Your task to perform on an android device: open app "LinkedIn" Image 0: 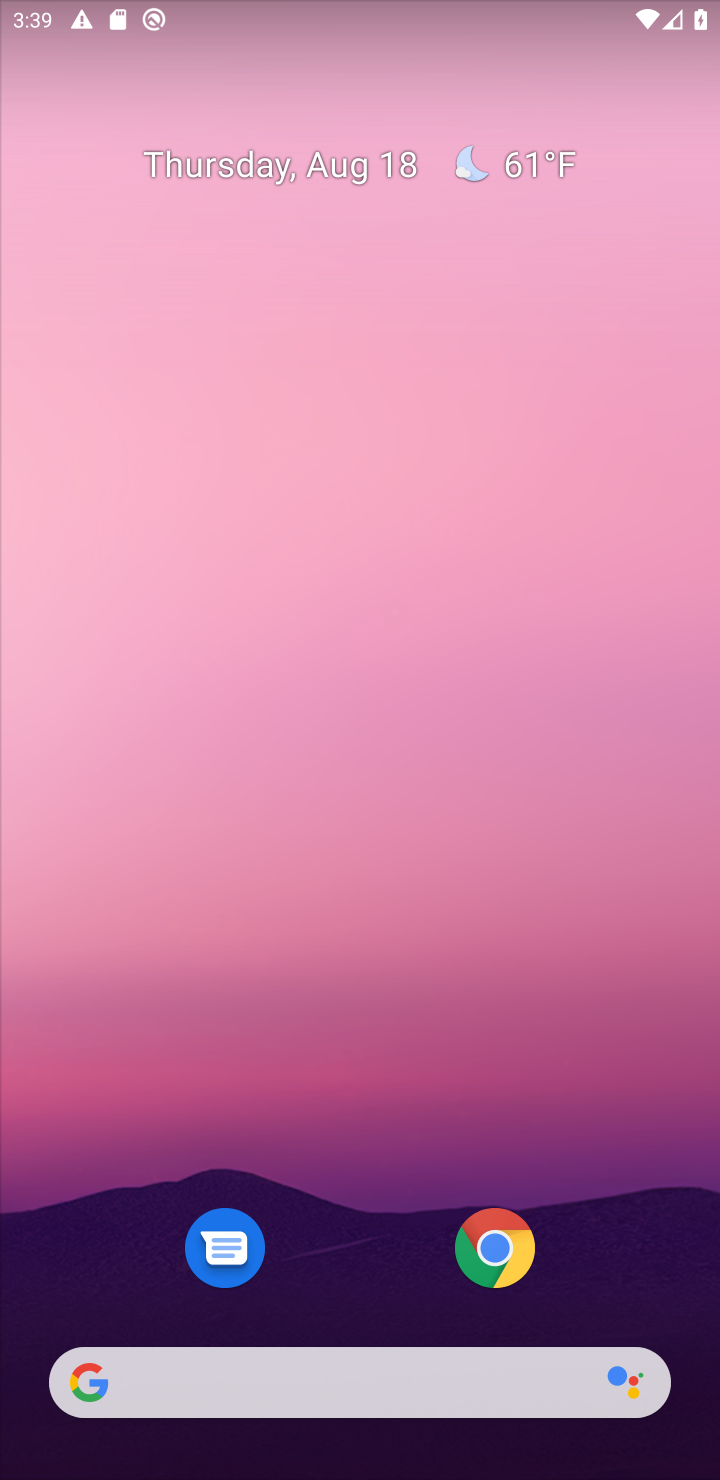
Step 0: drag from (384, 937) to (425, 7)
Your task to perform on an android device: open app "LinkedIn" Image 1: 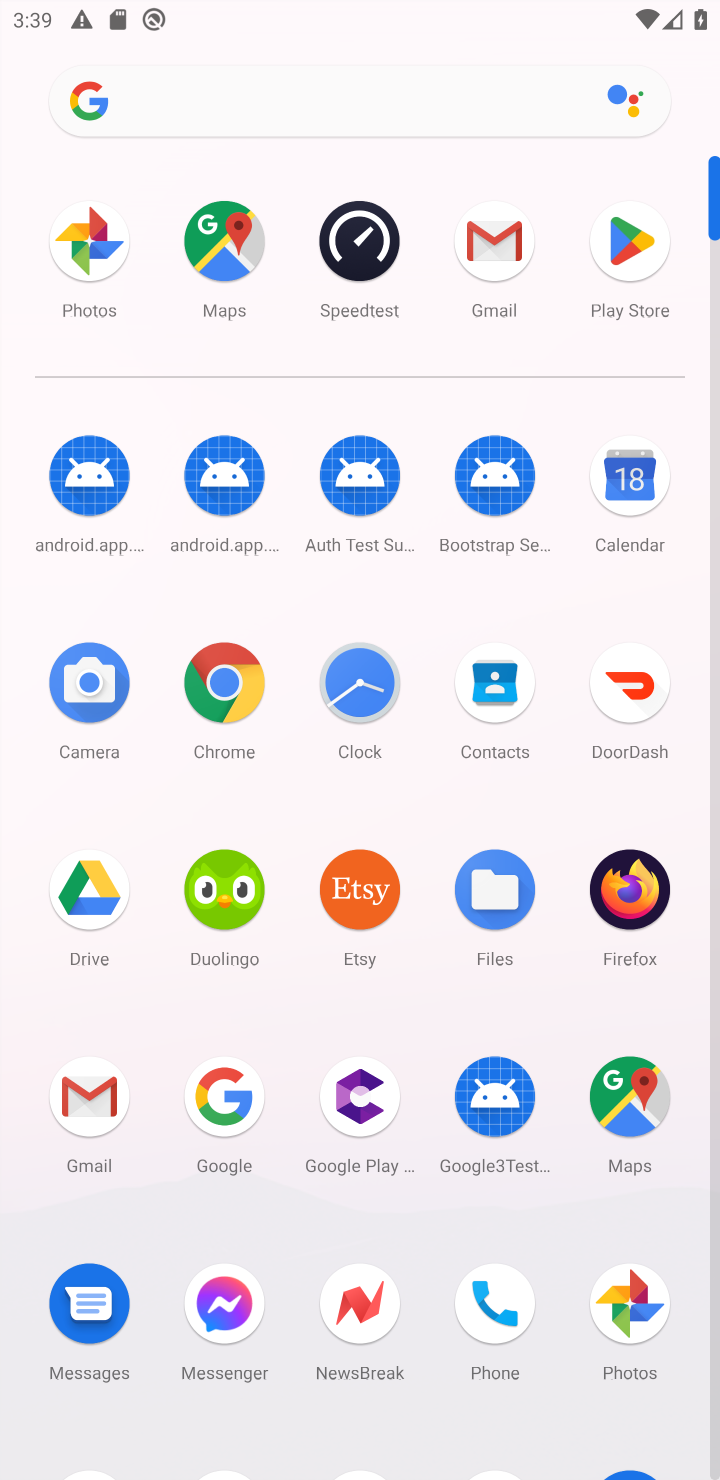
Step 1: click (619, 238)
Your task to perform on an android device: open app "LinkedIn" Image 2: 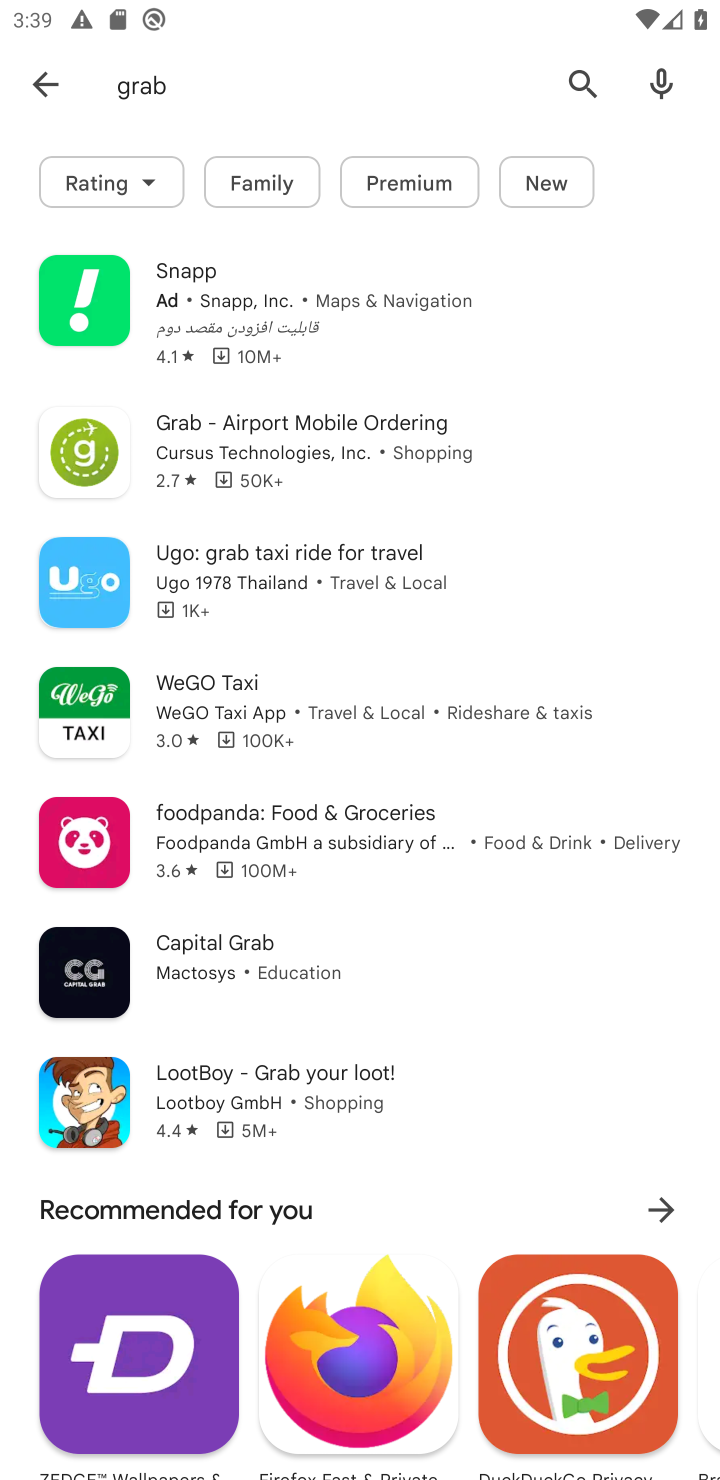
Step 2: click (579, 79)
Your task to perform on an android device: open app "LinkedIn" Image 3: 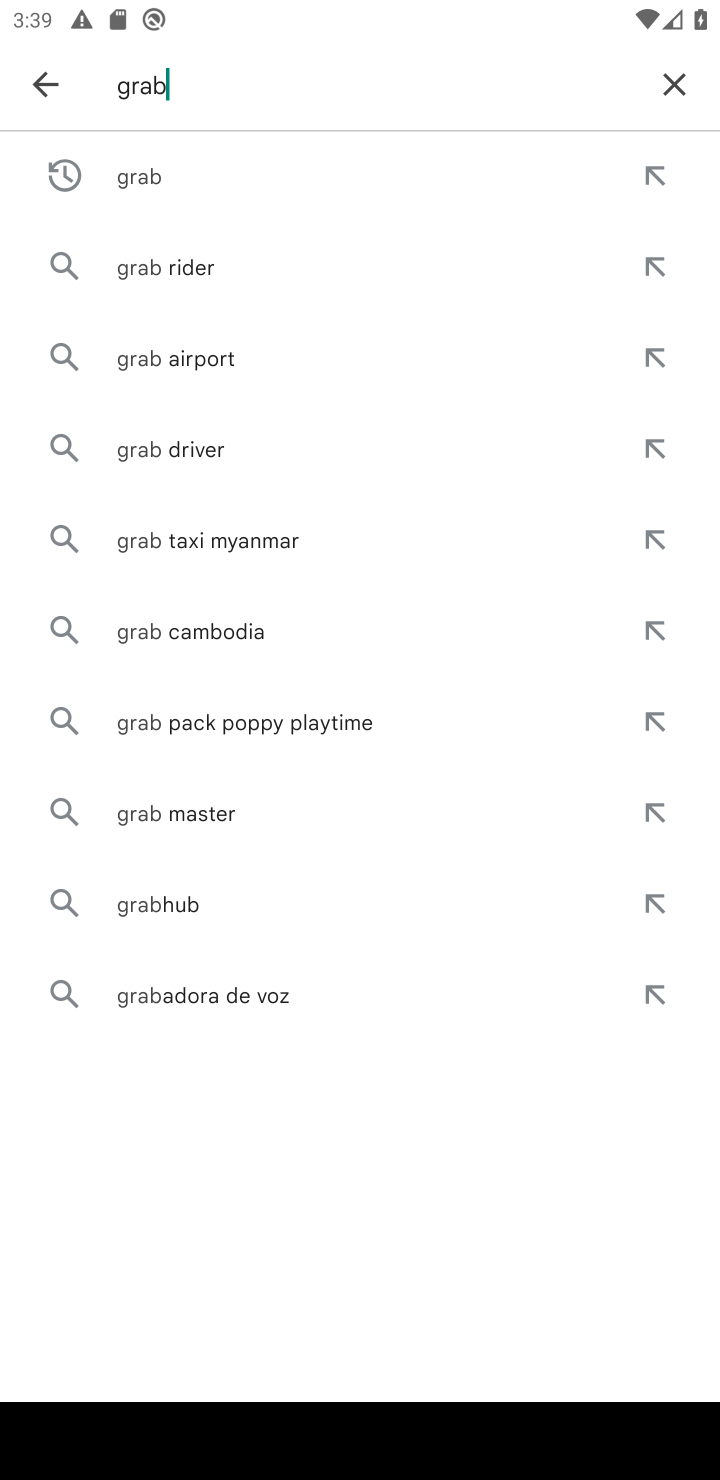
Step 3: click (674, 75)
Your task to perform on an android device: open app "LinkedIn" Image 4: 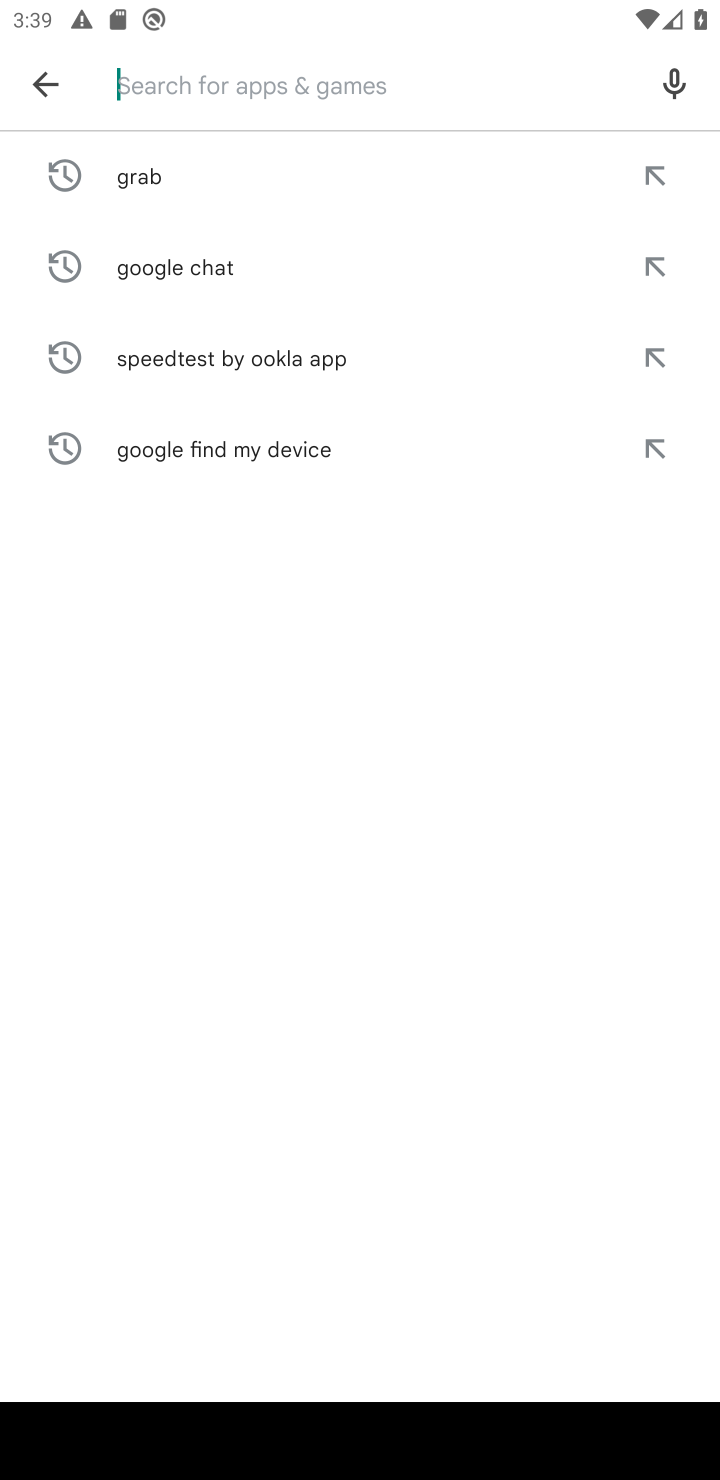
Step 4: type "LinkedIn"
Your task to perform on an android device: open app "LinkedIn" Image 5: 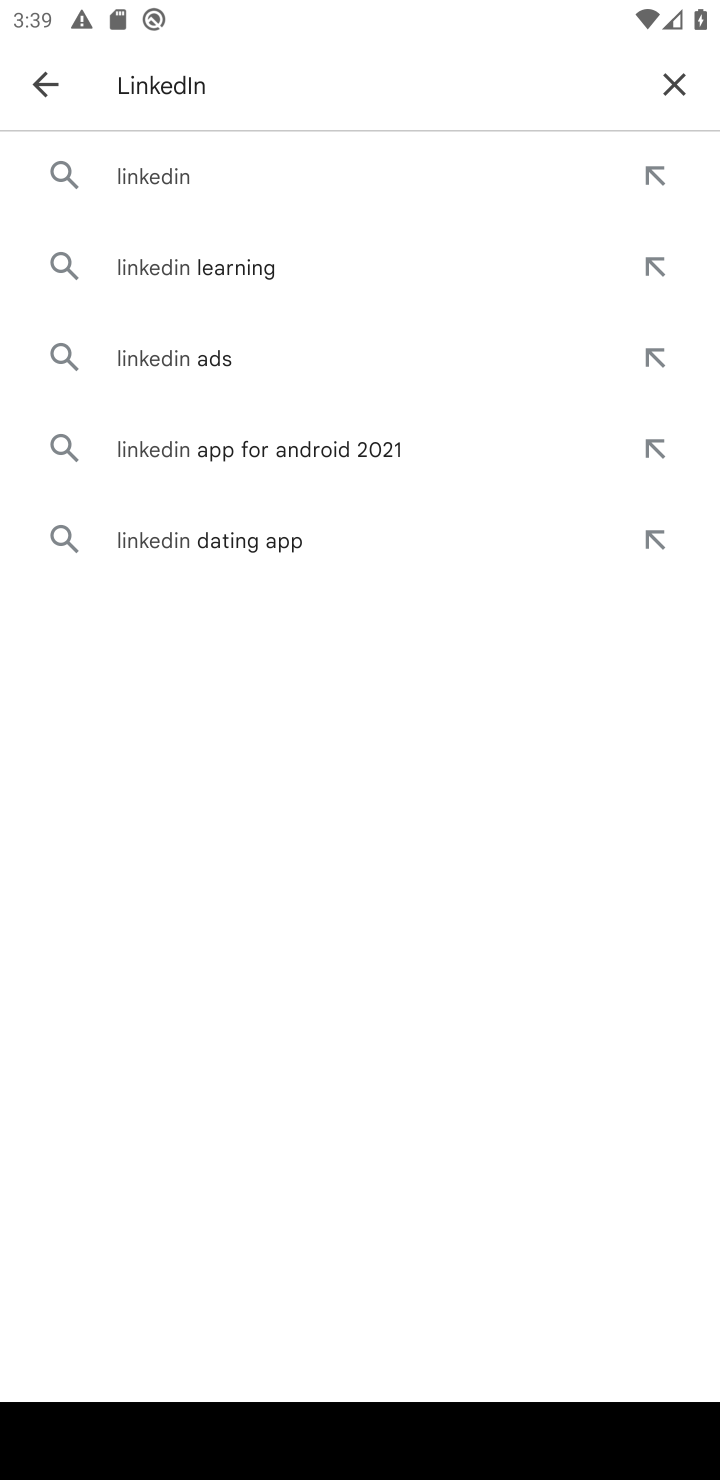
Step 5: click (151, 180)
Your task to perform on an android device: open app "LinkedIn" Image 6: 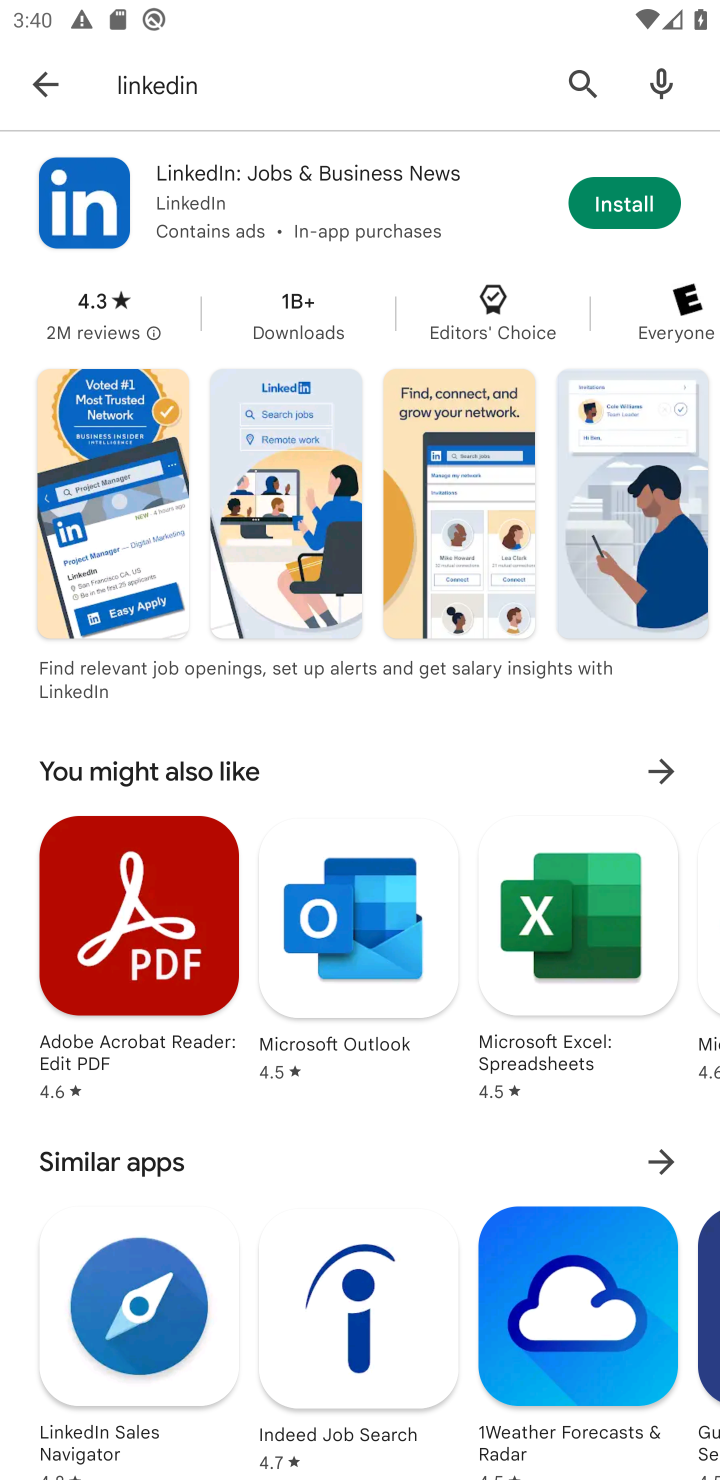
Step 6: task complete